Your task to perform on an android device: turn off wifi Image 0: 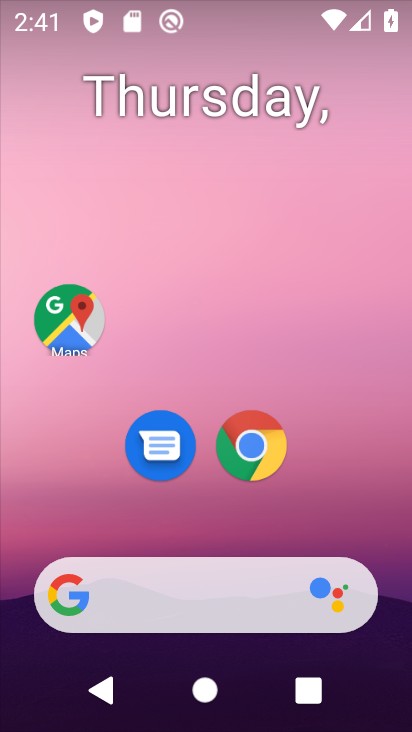
Step 0: drag from (335, 539) to (283, 63)
Your task to perform on an android device: turn off wifi Image 1: 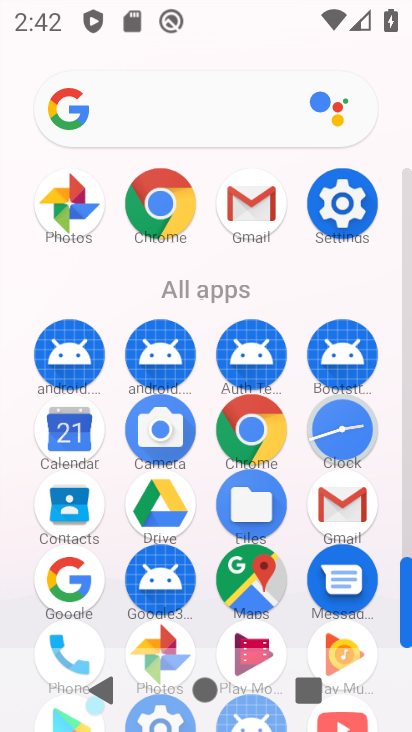
Step 1: click (344, 204)
Your task to perform on an android device: turn off wifi Image 2: 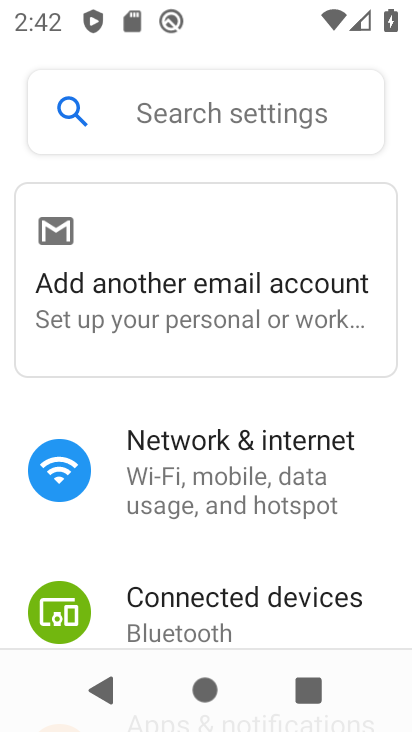
Step 2: click (311, 437)
Your task to perform on an android device: turn off wifi Image 3: 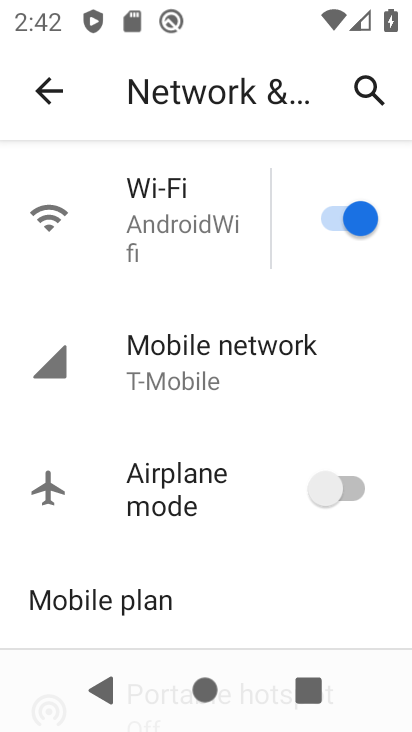
Step 3: click (357, 222)
Your task to perform on an android device: turn off wifi Image 4: 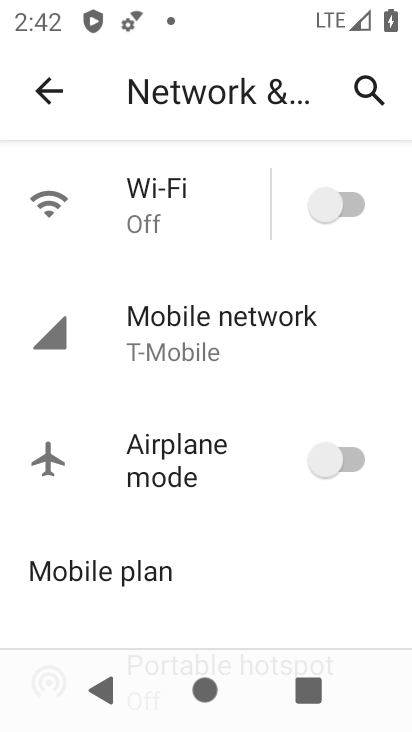
Step 4: task complete